Your task to perform on an android device: Play the last video I watched on Youtube Image 0: 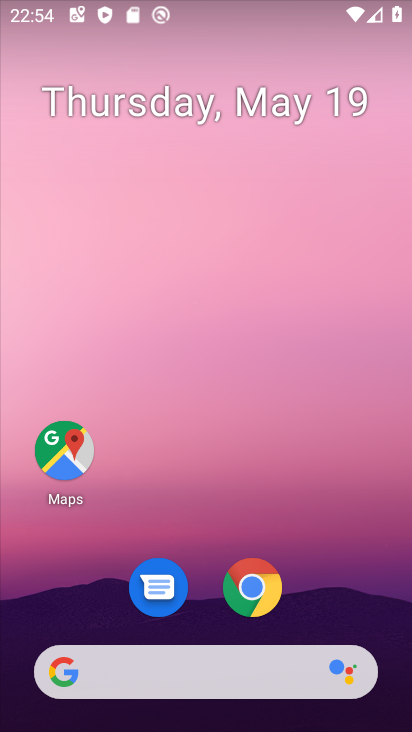
Step 0: drag from (253, 701) to (254, 235)
Your task to perform on an android device: Play the last video I watched on Youtube Image 1: 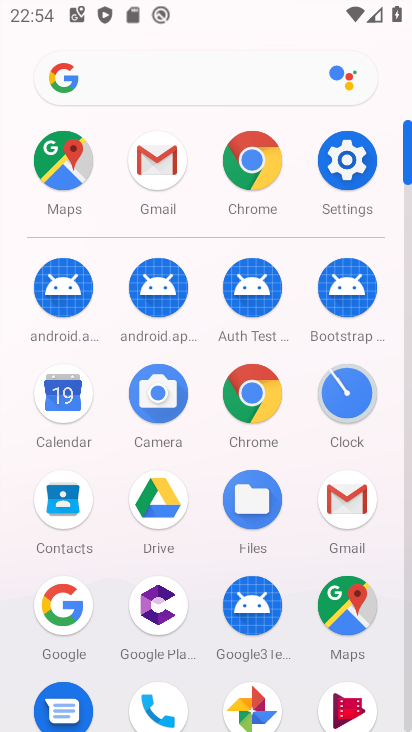
Step 1: drag from (288, 554) to (297, 353)
Your task to perform on an android device: Play the last video I watched on Youtube Image 2: 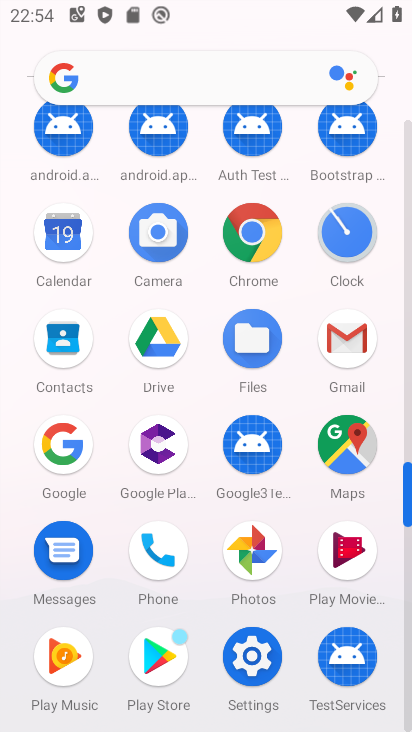
Step 2: drag from (102, 605) to (130, 464)
Your task to perform on an android device: Play the last video I watched on Youtube Image 3: 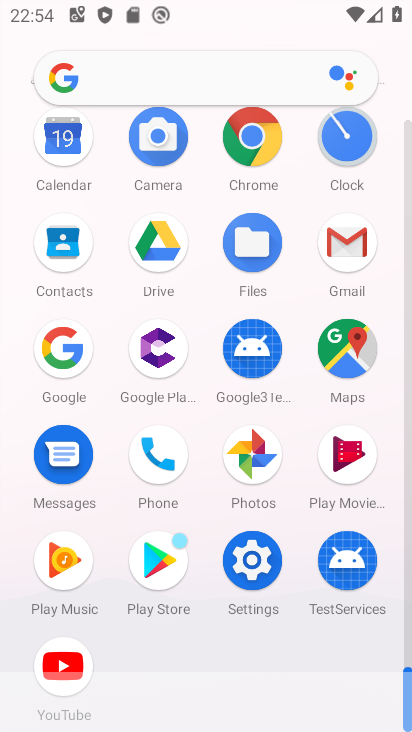
Step 3: click (75, 675)
Your task to perform on an android device: Play the last video I watched on Youtube Image 4: 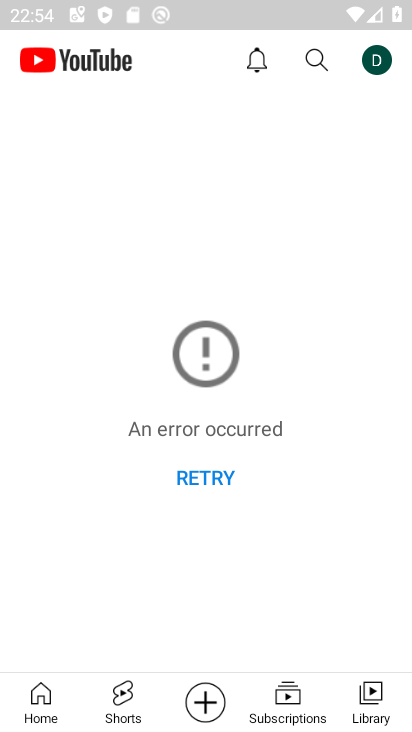
Step 4: click (375, 694)
Your task to perform on an android device: Play the last video I watched on Youtube Image 5: 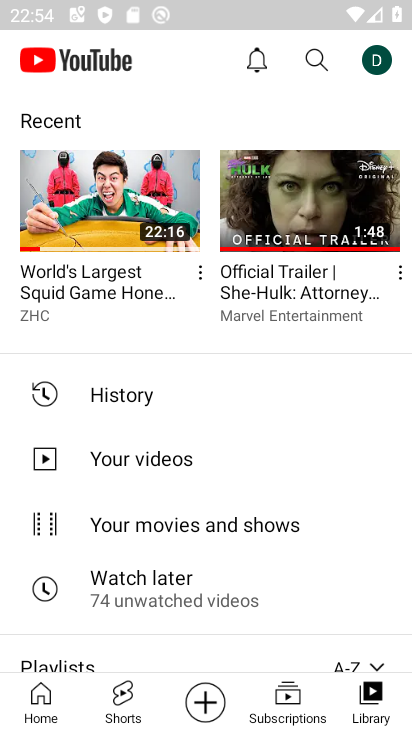
Step 5: click (117, 203)
Your task to perform on an android device: Play the last video I watched on Youtube Image 6: 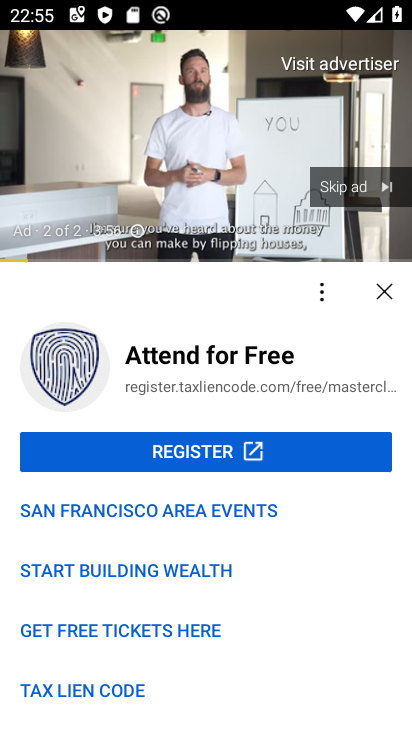
Step 6: click (388, 292)
Your task to perform on an android device: Play the last video I watched on Youtube Image 7: 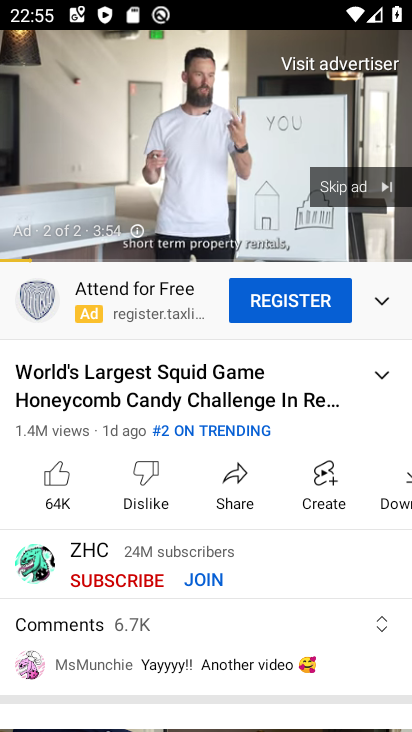
Step 7: click (341, 179)
Your task to perform on an android device: Play the last video I watched on Youtube Image 8: 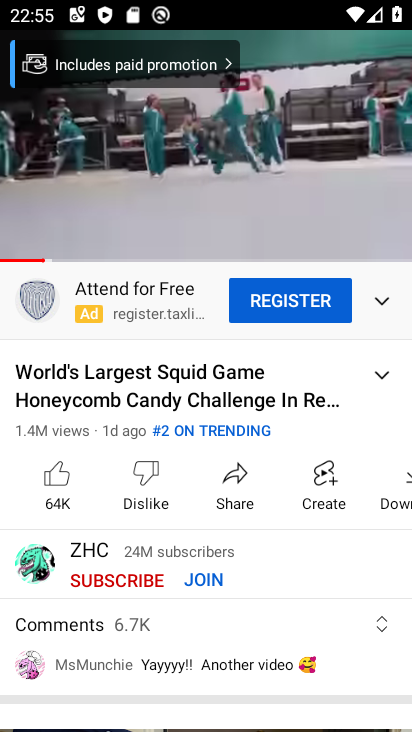
Step 8: task complete